Your task to perform on an android device: What's on my calendar today? Image 0: 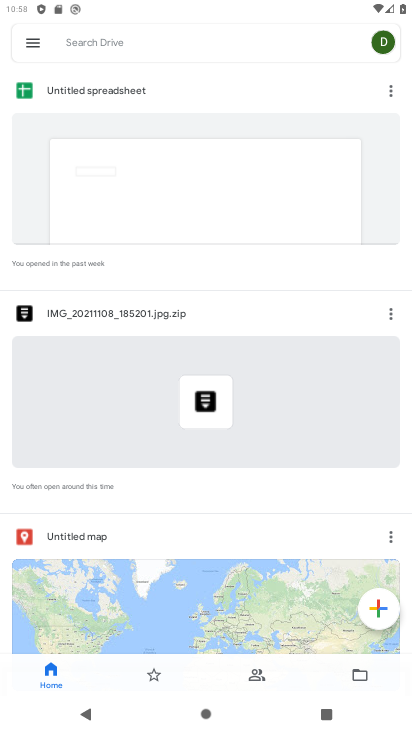
Step 0: press home button
Your task to perform on an android device: What's on my calendar today? Image 1: 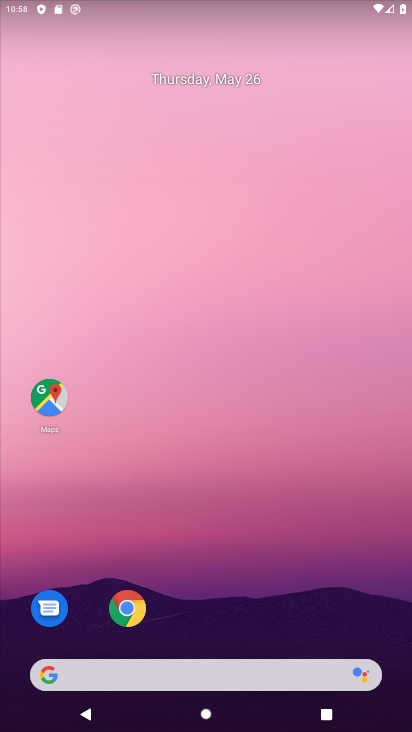
Step 1: drag from (255, 542) to (203, 72)
Your task to perform on an android device: What's on my calendar today? Image 2: 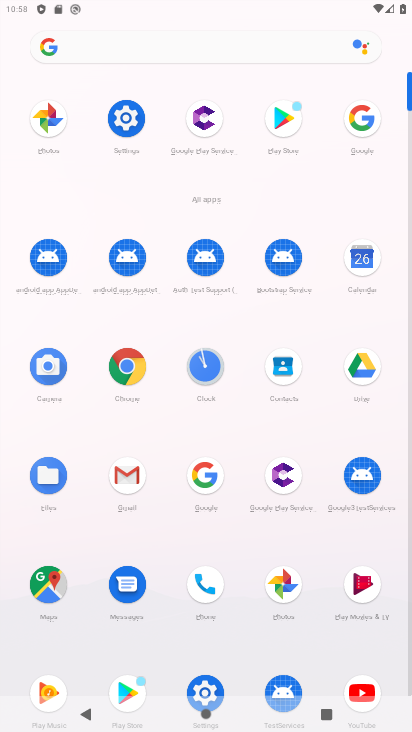
Step 2: click (362, 248)
Your task to perform on an android device: What's on my calendar today? Image 3: 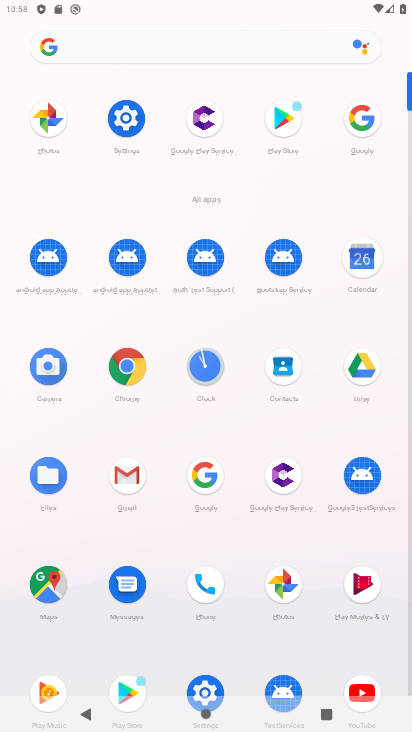
Step 3: click (362, 248)
Your task to perform on an android device: What's on my calendar today? Image 4: 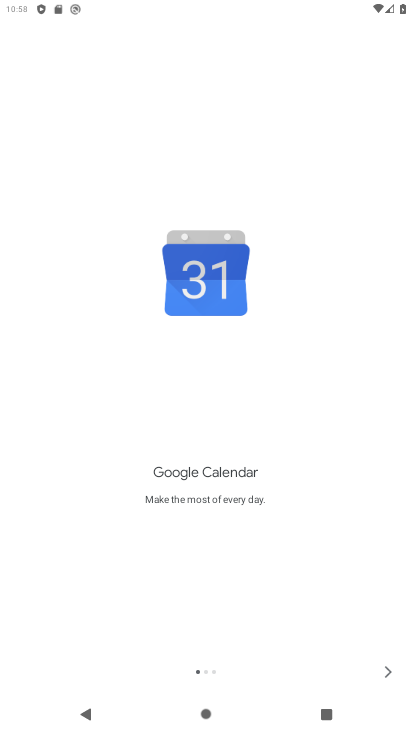
Step 4: click (388, 665)
Your task to perform on an android device: What's on my calendar today? Image 5: 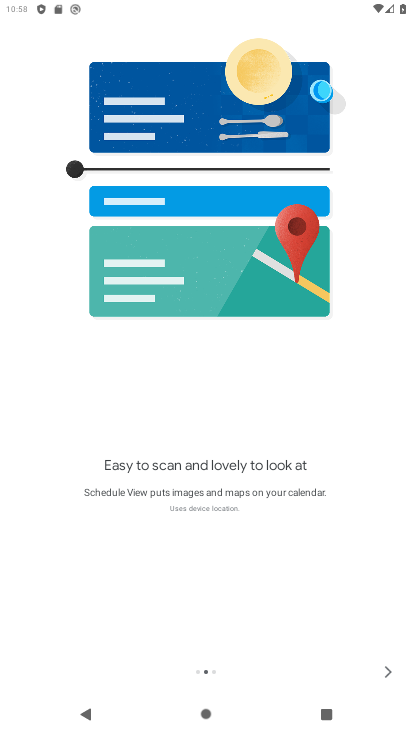
Step 5: click (388, 665)
Your task to perform on an android device: What's on my calendar today? Image 6: 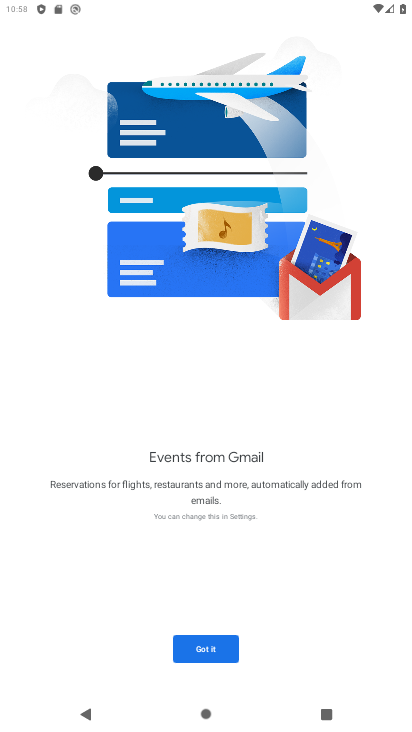
Step 6: click (196, 641)
Your task to perform on an android device: What's on my calendar today? Image 7: 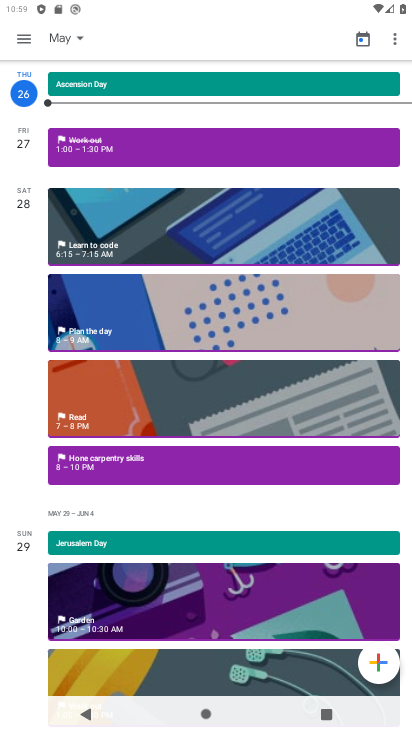
Step 7: click (24, 34)
Your task to perform on an android device: What's on my calendar today? Image 8: 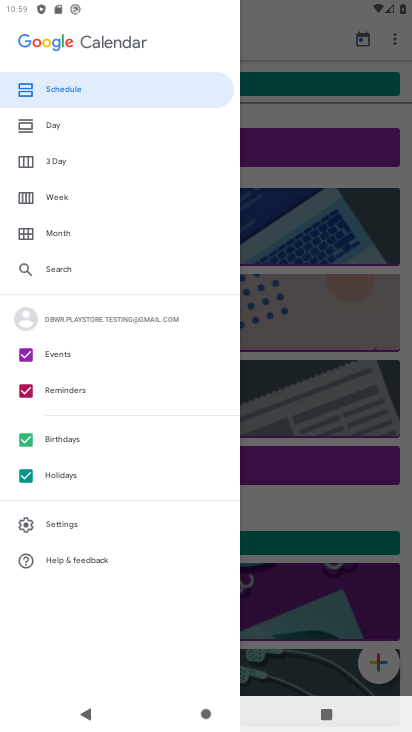
Step 8: click (54, 126)
Your task to perform on an android device: What's on my calendar today? Image 9: 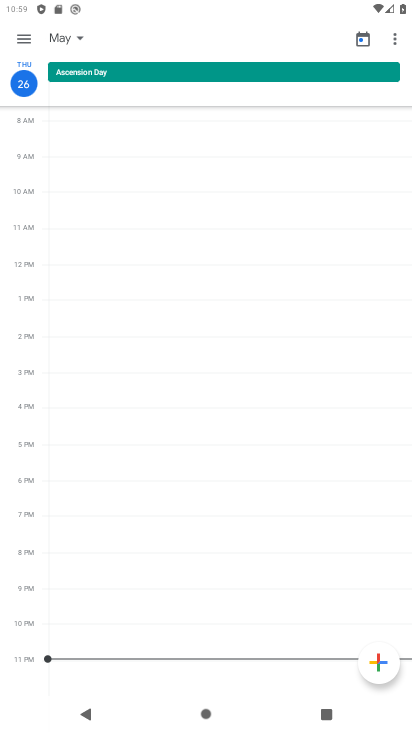
Step 9: task complete